Your task to perform on an android device: Open Chrome and go to the settings page Image 0: 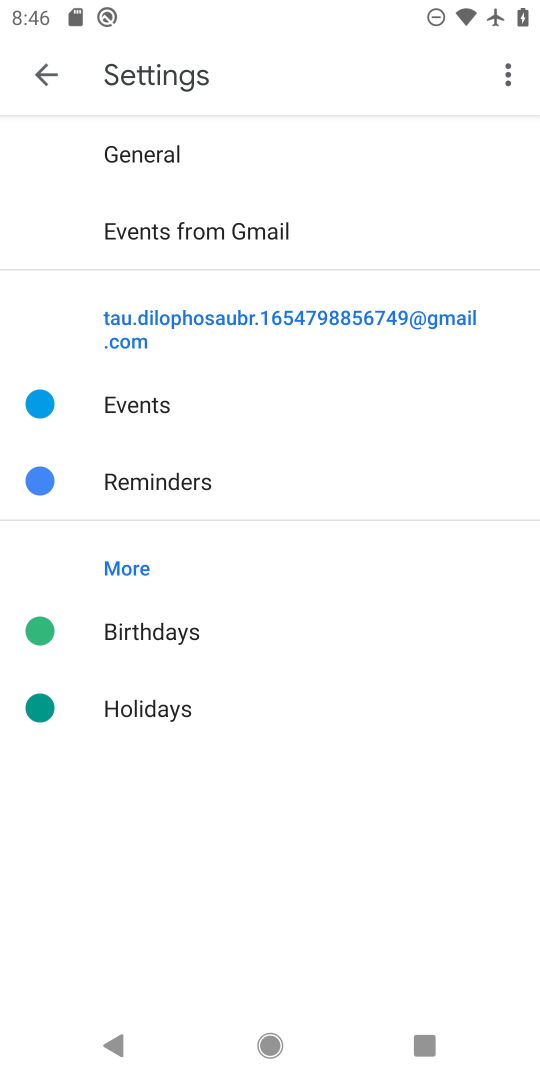
Step 0: press home button
Your task to perform on an android device: Open Chrome and go to the settings page Image 1: 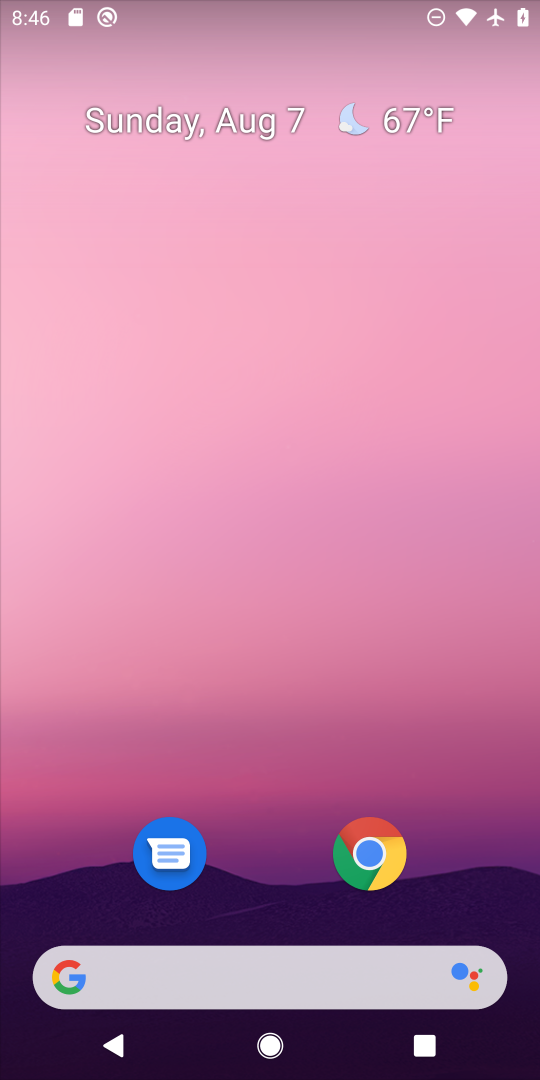
Step 1: drag from (281, 923) to (312, 190)
Your task to perform on an android device: Open Chrome and go to the settings page Image 2: 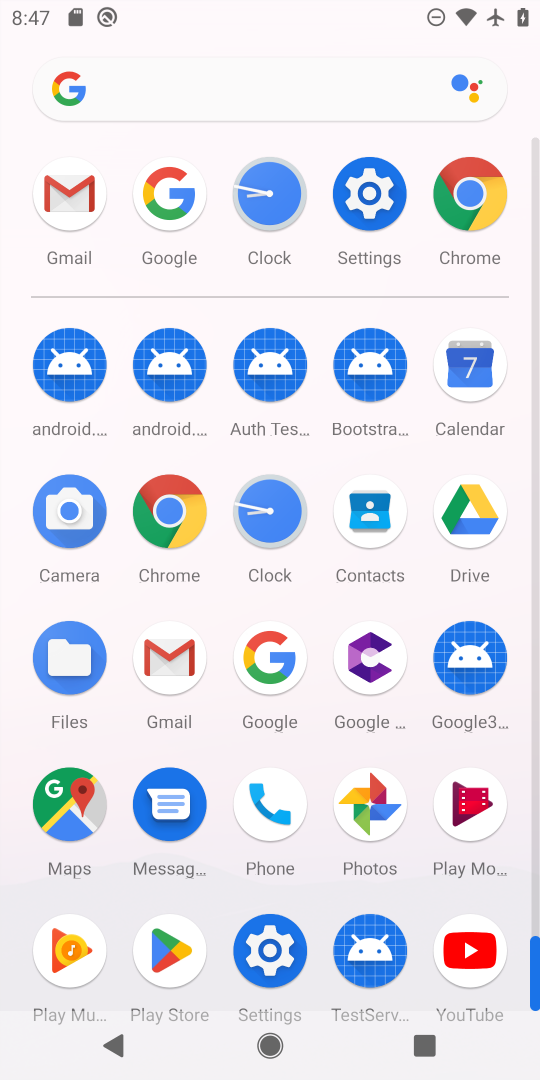
Step 2: click (492, 225)
Your task to perform on an android device: Open Chrome and go to the settings page Image 3: 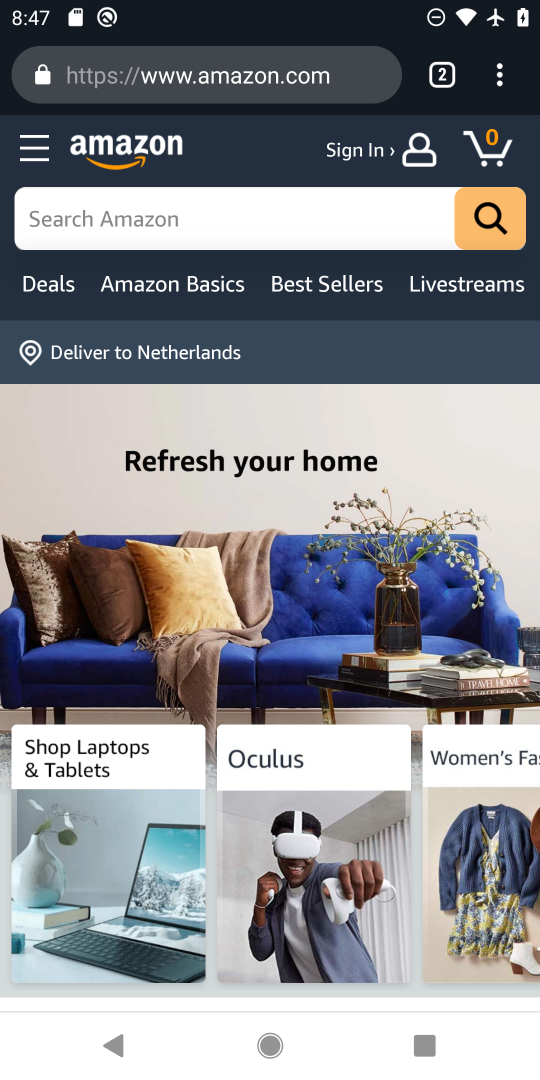
Step 3: click (503, 84)
Your task to perform on an android device: Open Chrome and go to the settings page Image 4: 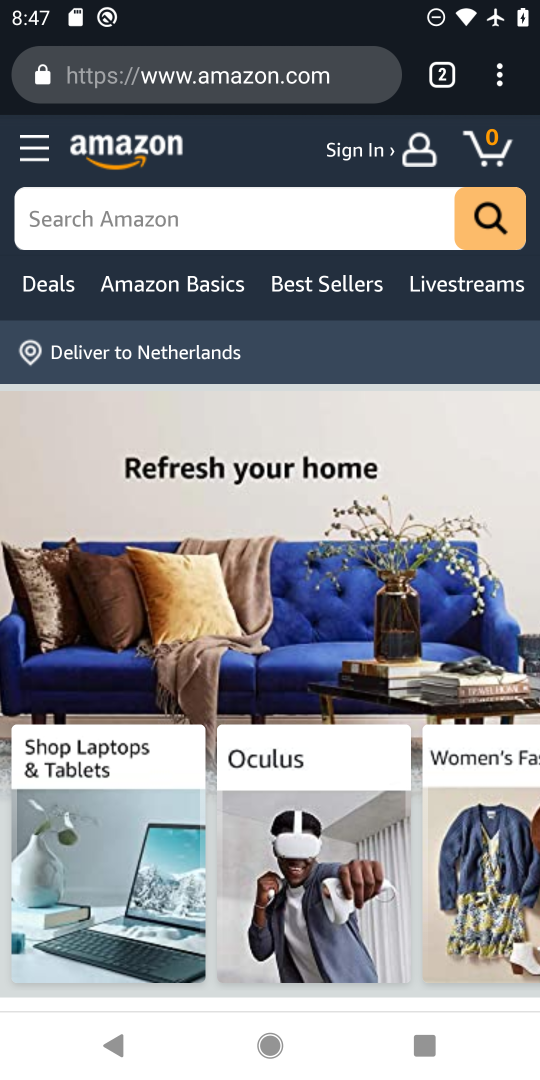
Step 4: click (507, 91)
Your task to perform on an android device: Open Chrome and go to the settings page Image 5: 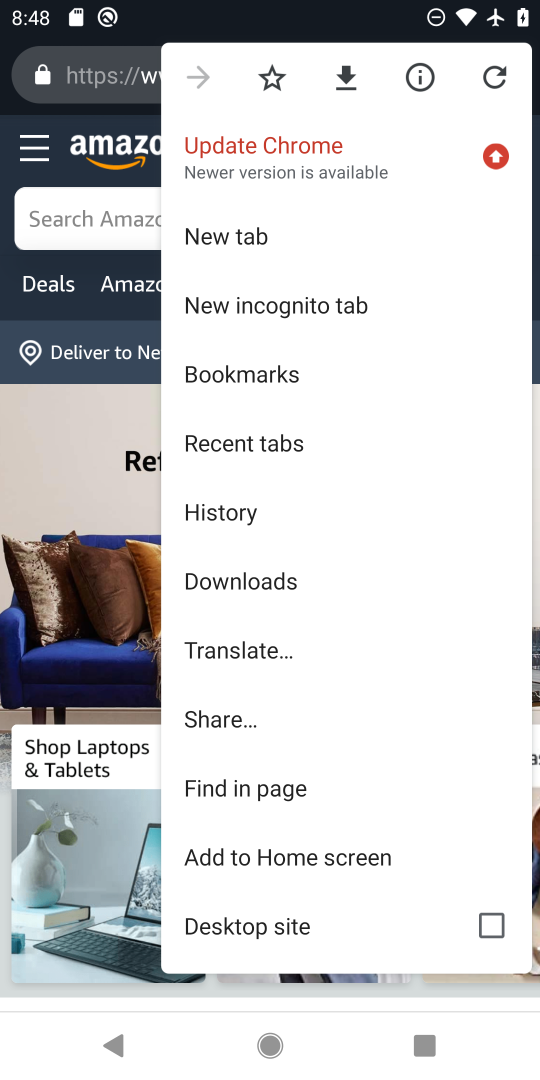
Step 5: drag from (288, 918) to (305, 422)
Your task to perform on an android device: Open Chrome and go to the settings page Image 6: 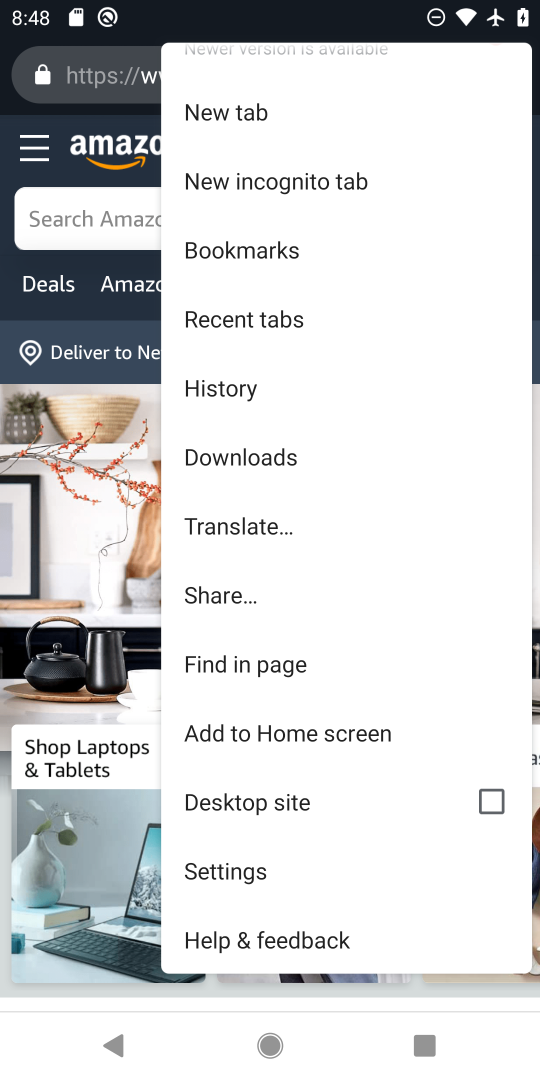
Step 6: click (257, 876)
Your task to perform on an android device: Open Chrome and go to the settings page Image 7: 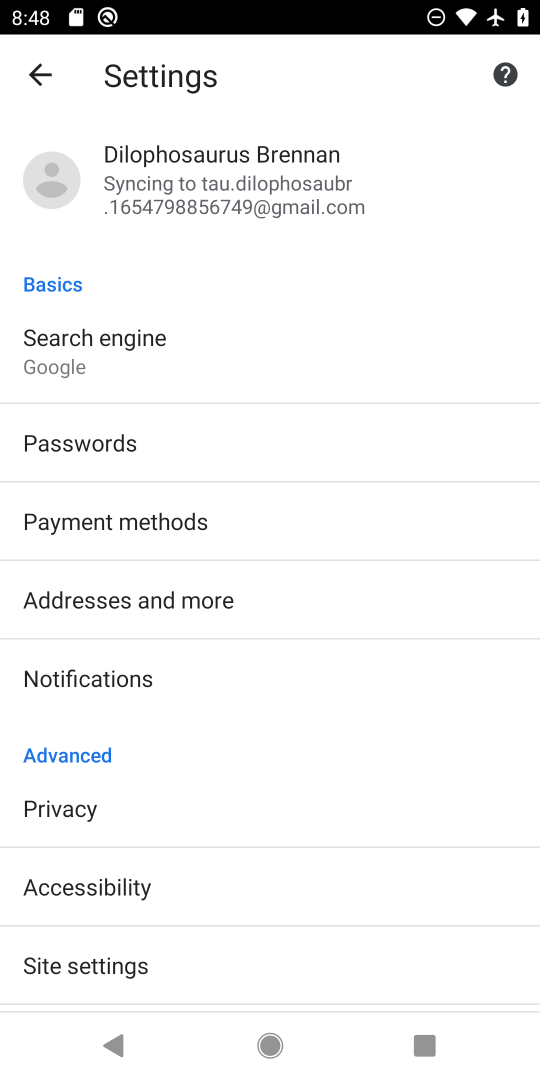
Step 7: task complete